Your task to perform on an android device: turn notification dots on Image 0: 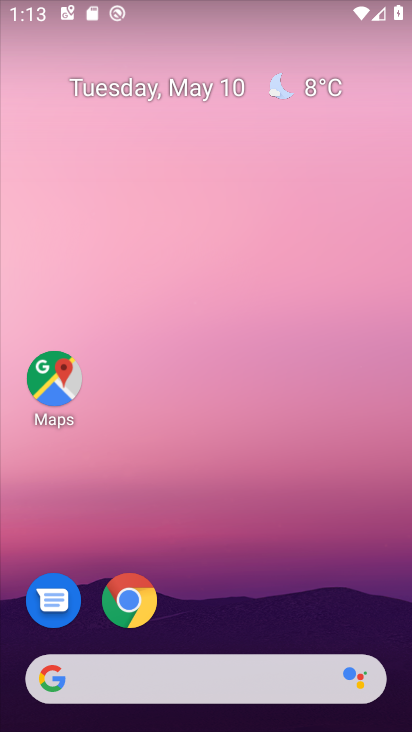
Step 0: drag from (190, 665) to (306, 229)
Your task to perform on an android device: turn notification dots on Image 1: 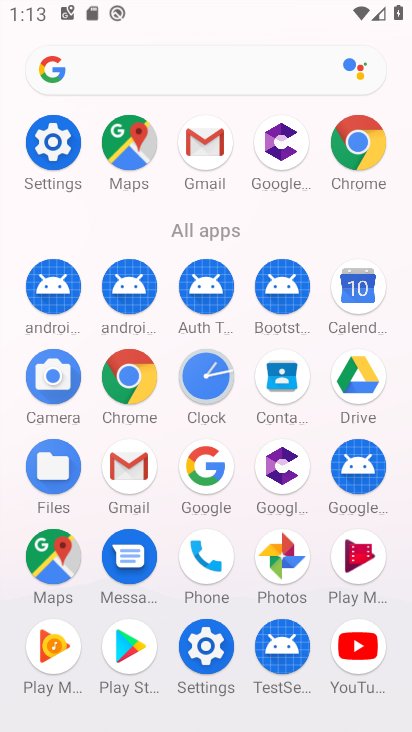
Step 1: click (226, 628)
Your task to perform on an android device: turn notification dots on Image 2: 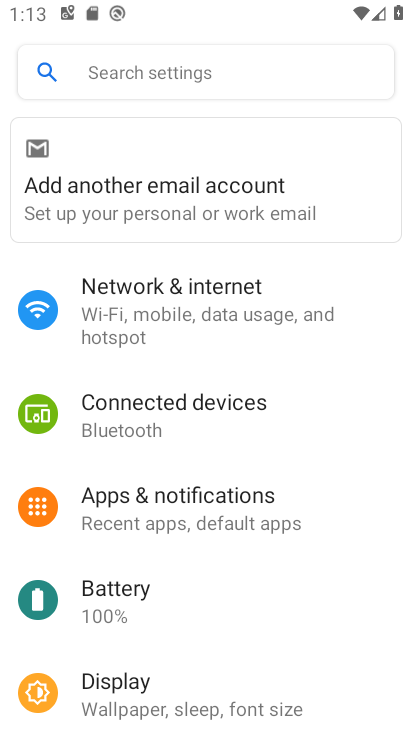
Step 2: click (178, 515)
Your task to perform on an android device: turn notification dots on Image 3: 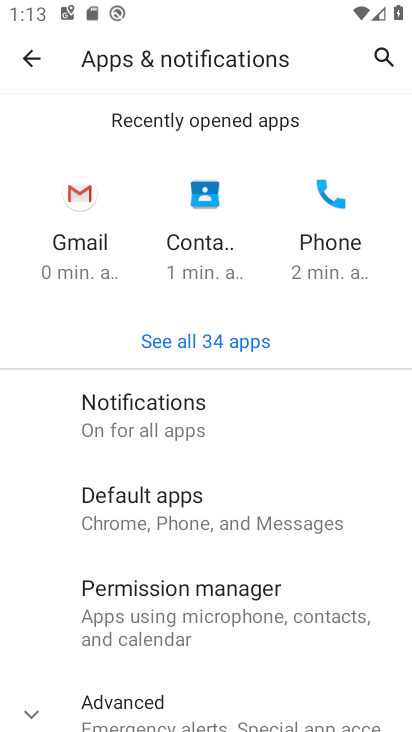
Step 3: click (204, 433)
Your task to perform on an android device: turn notification dots on Image 4: 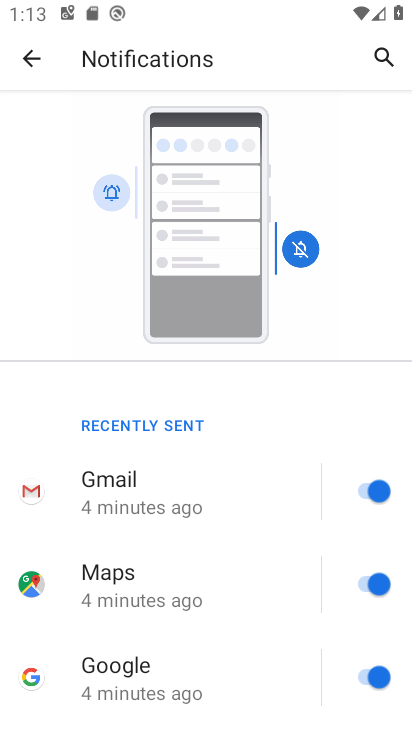
Step 4: drag from (131, 639) to (301, 197)
Your task to perform on an android device: turn notification dots on Image 5: 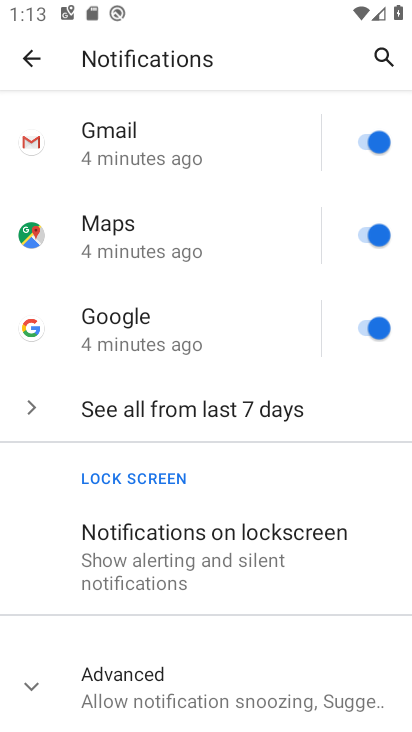
Step 5: click (186, 694)
Your task to perform on an android device: turn notification dots on Image 6: 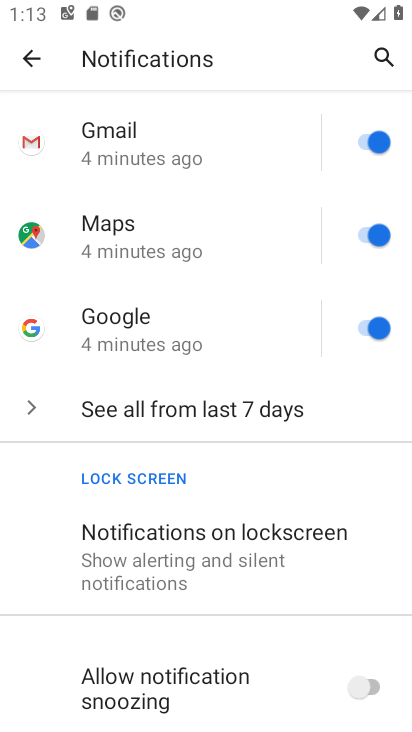
Step 6: task complete